Your task to perform on an android device: toggle sleep mode Image 0: 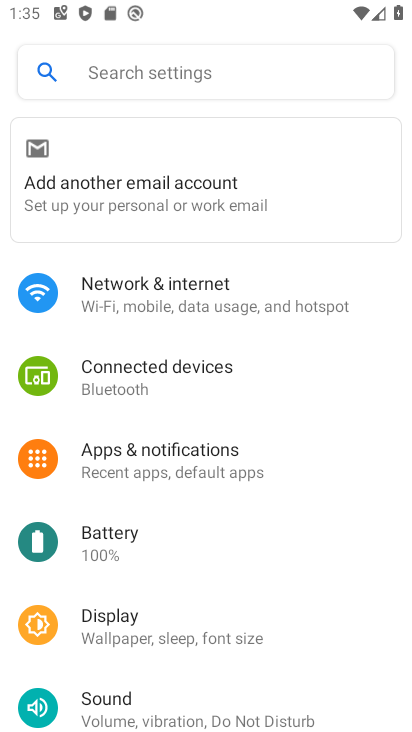
Step 0: task impossible